Your task to perform on an android device: Go to ESPN.com Image 0: 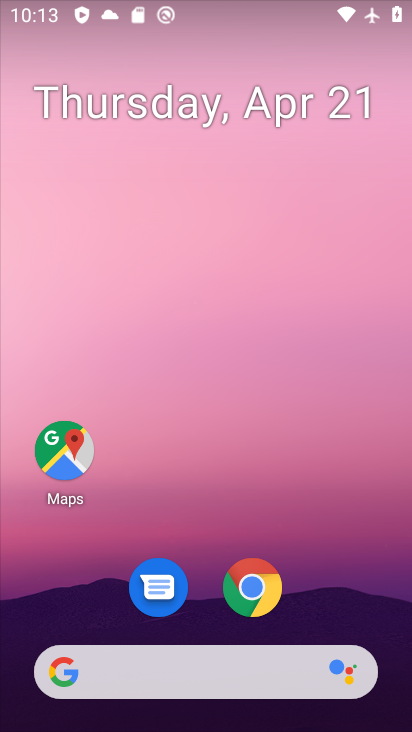
Step 0: drag from (345, 584) to (362, 118)
Your task to perform on an android device: Go to ESPN.com Image 1: 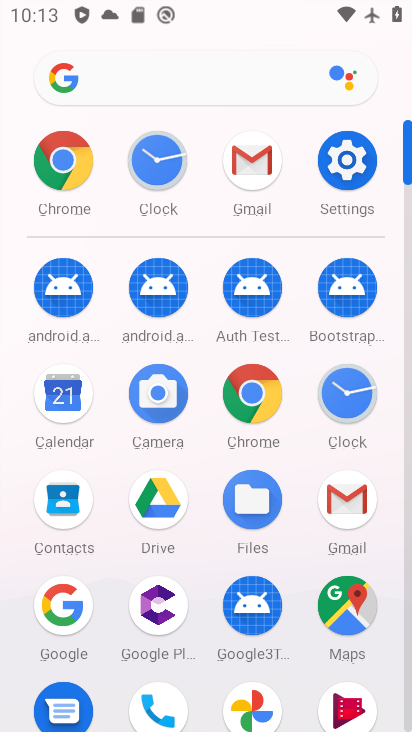
Step 1: click (271, 401)
Your task to perform on an android device: Go to ESPN.com Image 2: 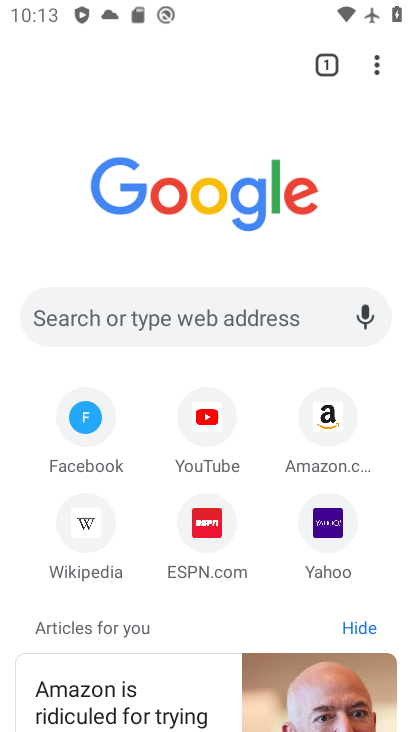
Step 2: click (208, 528)
Your task to perform on an android device: Go to ESPN.com Image 3: 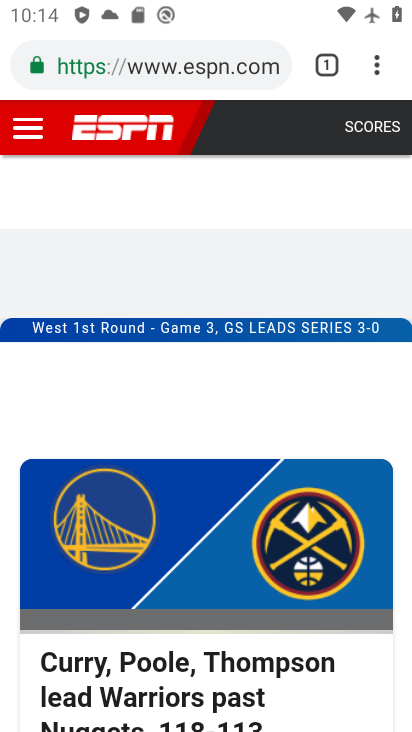
Step 3: task complete